Your task to perform on an android device: turn off picture-in-picture Image 0: 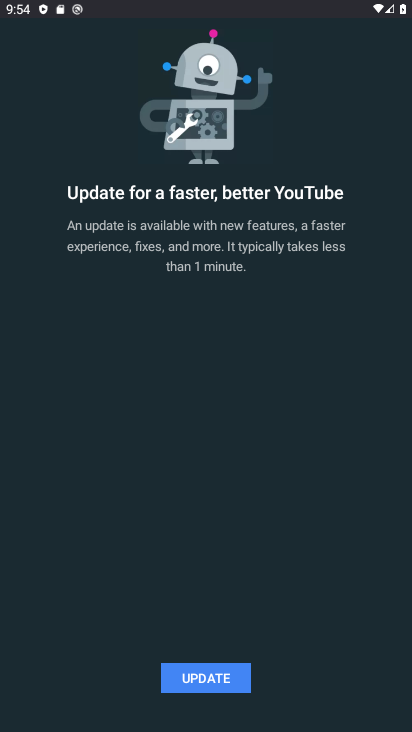
Step 0: press home button
Your task to perform on an android device: turn off picture-in-picture Image 1: 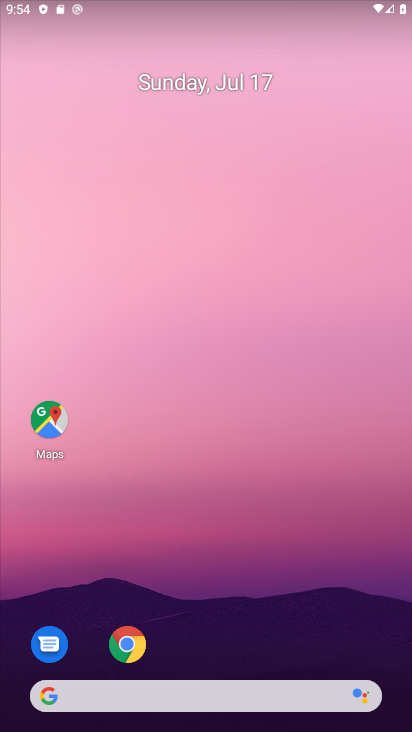
Step 1: drag from (202, 559) to (201, 0)
Your task to perform on an android device: turn off picture-in-picture Image 2: 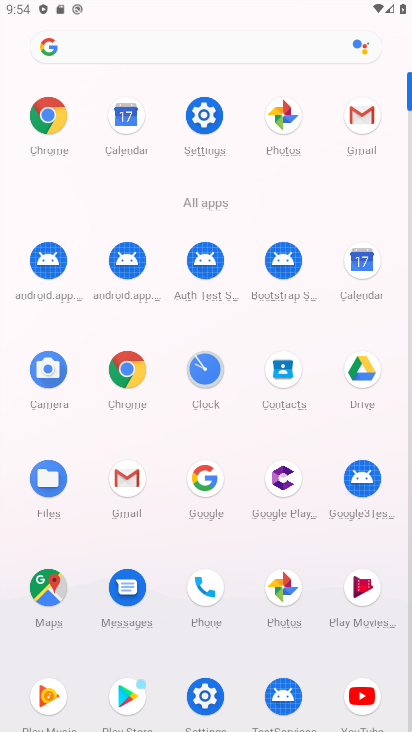
Step 2: click (45, 123)
Your task to perform on an android device: turn off picture-in-picture Image 3: 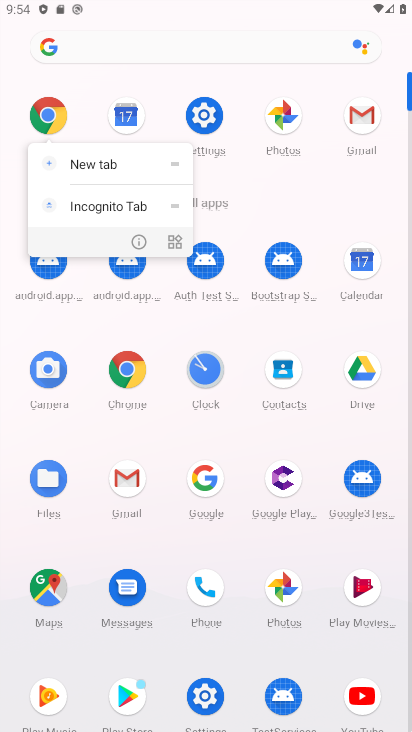
Step 3: click (130, 246)
Your task to perform on an android device: turn off picture-in-picture Image 4: 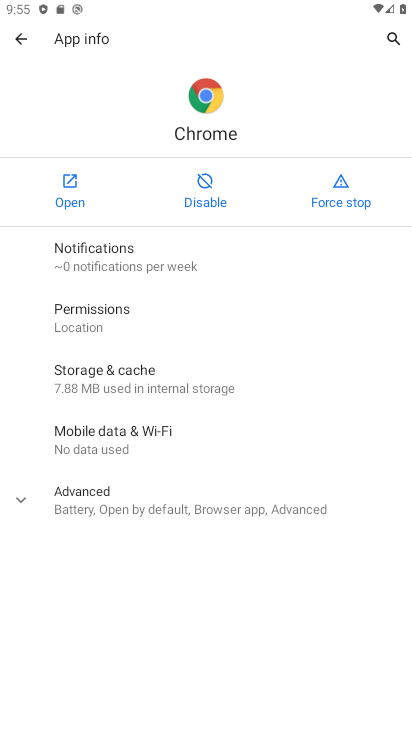
Step 4: click (90, 511)
Your task to perform on an android device: turn off picture-in-picture Image 5: 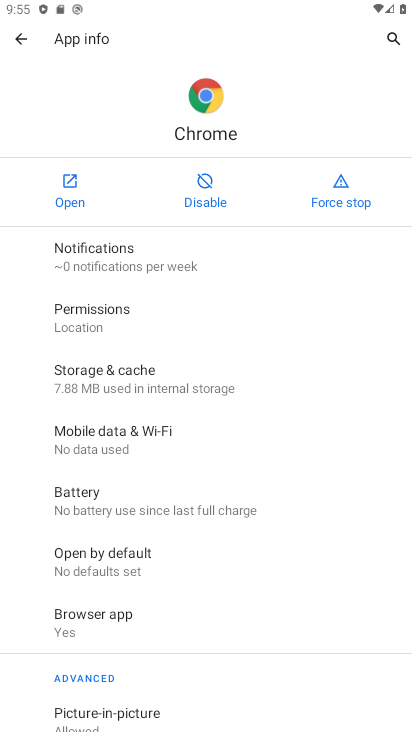
Step 5: drag from (168, 608) to (283, 140)
Your task to perform on an android device: turn off picture-in-picture Image 6: 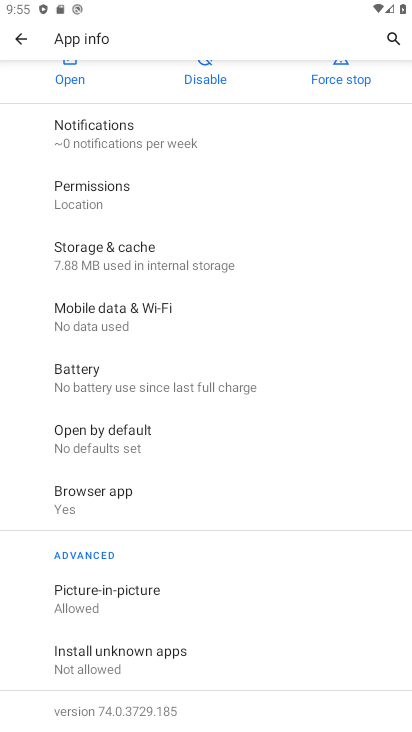
Step 6: click (118, 590)
Your task to perform on an android device: turn off picture-in-picture Image 7: 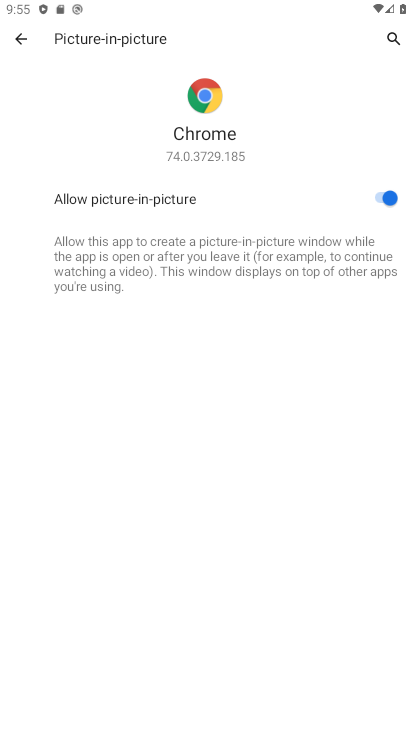
Step 7: click (374, 205)
Your task to perform on an android device: turn off picture-in-picture Image 8: 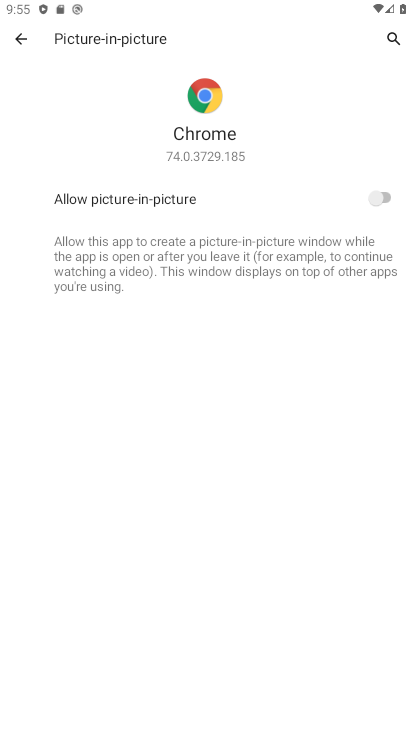
Step 8: task complete